Your task to perform on an android device: Open settings on Google Maps Image 0: 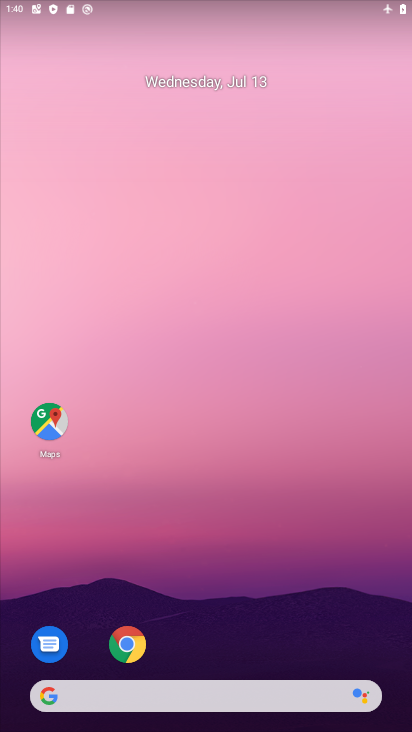
Step 0: drag from (253, 340) to (254, 37)
Your task to perform on an android device: Open settings on Google Maps Image 1: 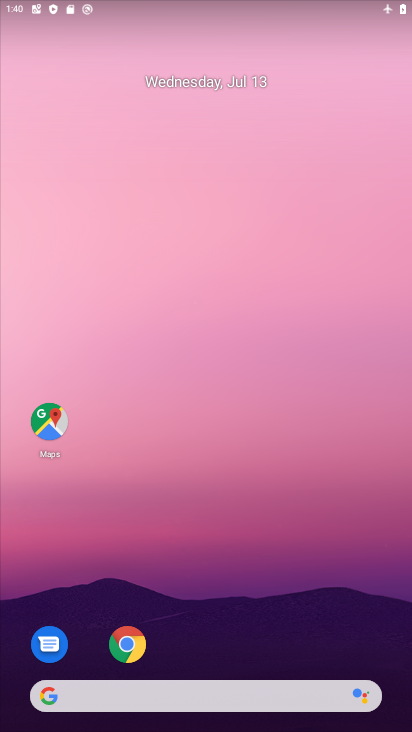
Step 1: drag from (271, 562) to (265, 138)
Your task to perform on an android device: Open settings on Google Maps Image 2: 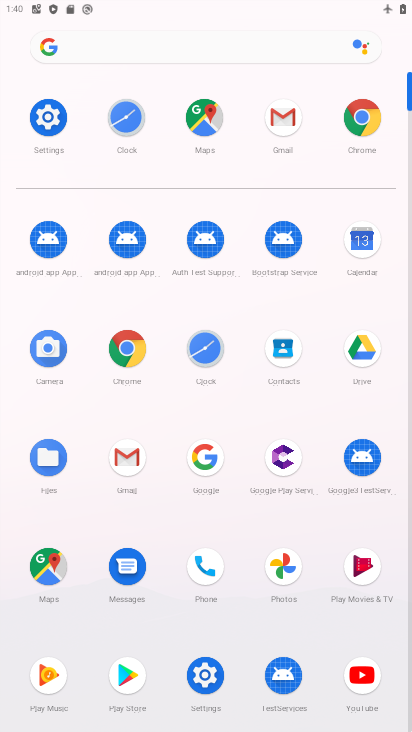
Step 2: click (209, 119)
Your task to perform on an android device: Open settings on Google Maps Image 3: 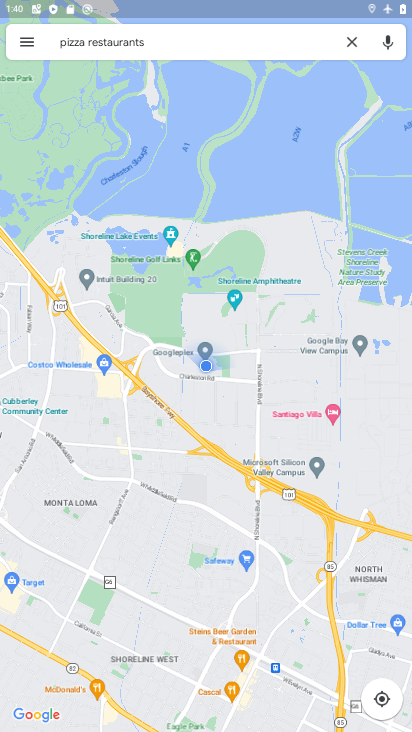
Step 3: click (33, 42)
Your task to perform on an android device: Open settings on Google Maps Image 4: 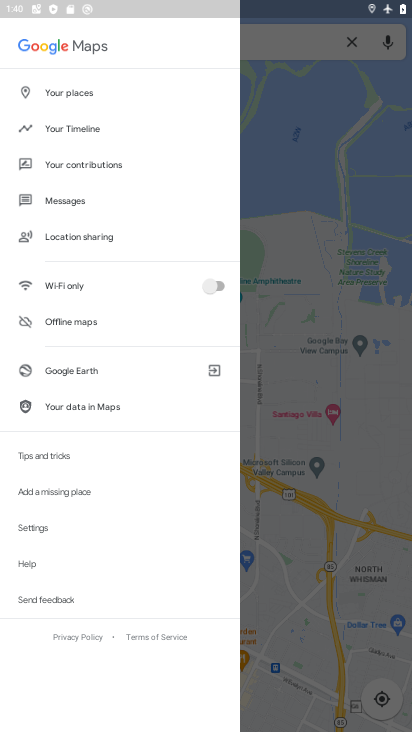
Step 4: click (45, 528)
Your task to perform on an android device: Open settings on Google Maps Image 5: 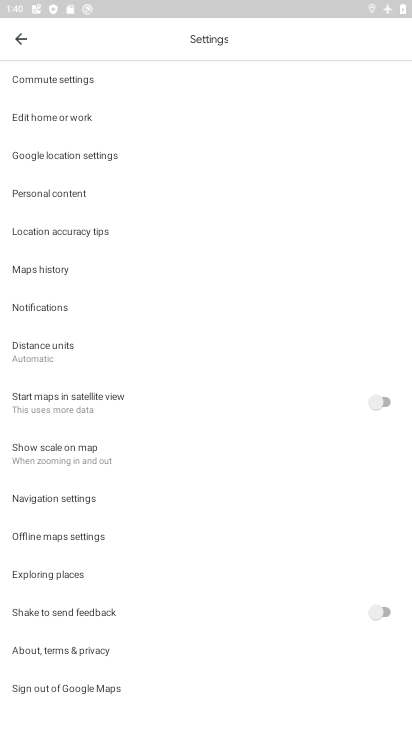
Step 5: task complete